Your task to perform on an android device: Search for Italian restaurants on Maps Image 0: 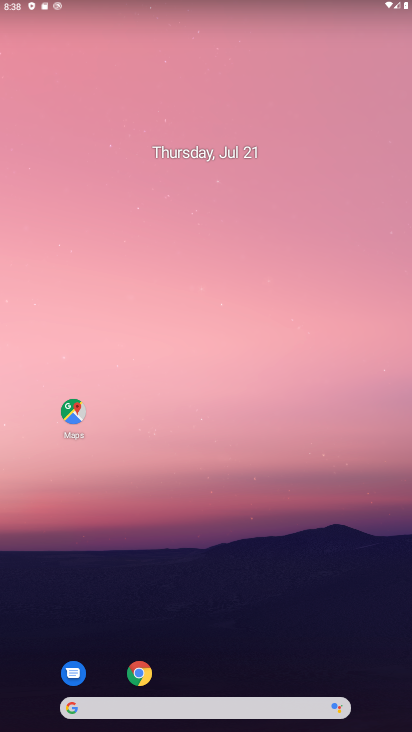
Step 0: drag from (235, 720) to (233, 8)
Your task to perform on an android device: Search for Italian restaurants on Maps Image 1: 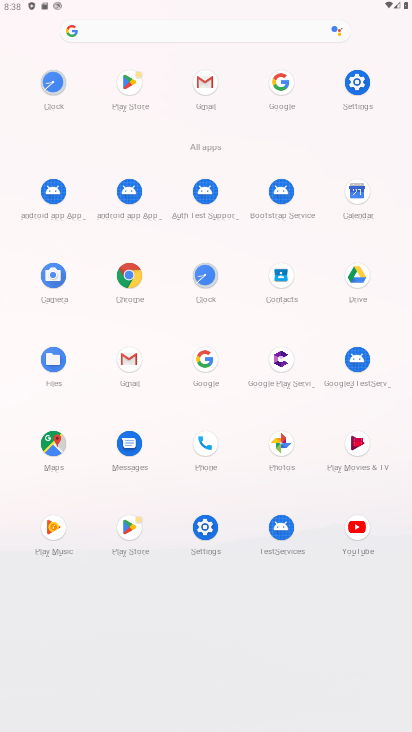
Step 1: click (49, 441)
Your task to perform on an android device: Search for Italian restaurants on Maps Image 2: 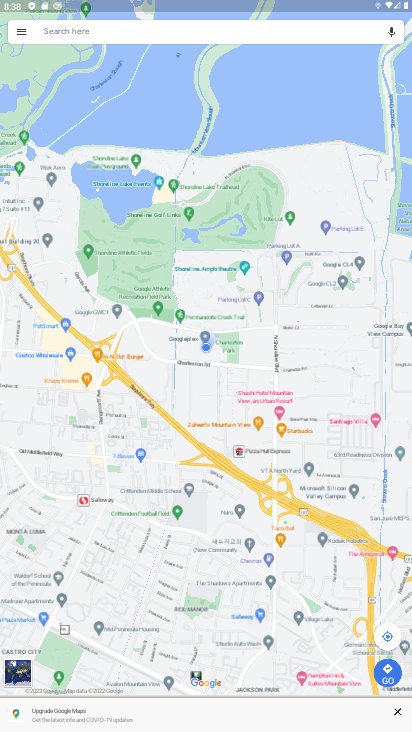
Step 2: click (214, 36)
Your task to perform on an android device: Search for Italian restaurants on Maps Image 3: 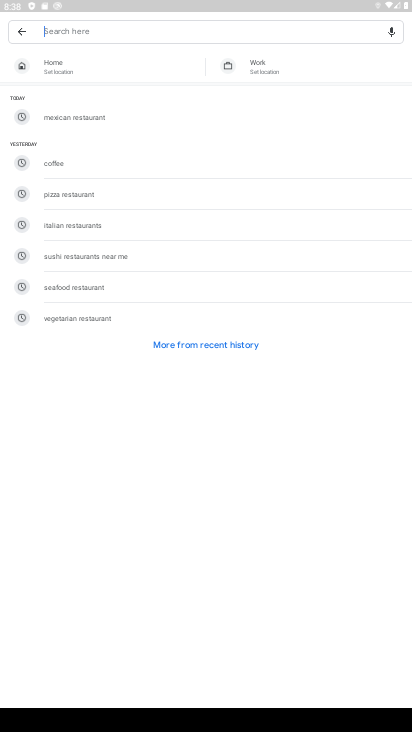
Step 3: type "italian restaurants"
Your task to perform on an android device: Search for Italian restaurants on Maps Image 4: 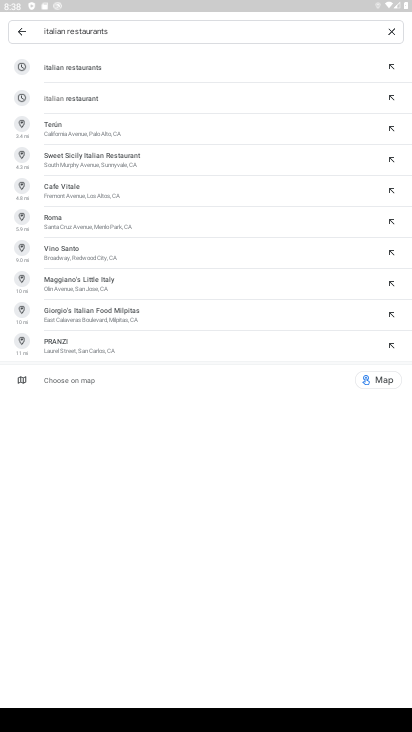
Step 4: click (84, 68)
Your task to perform on an android device: Search for Italian restaurants on Maps Image 5: 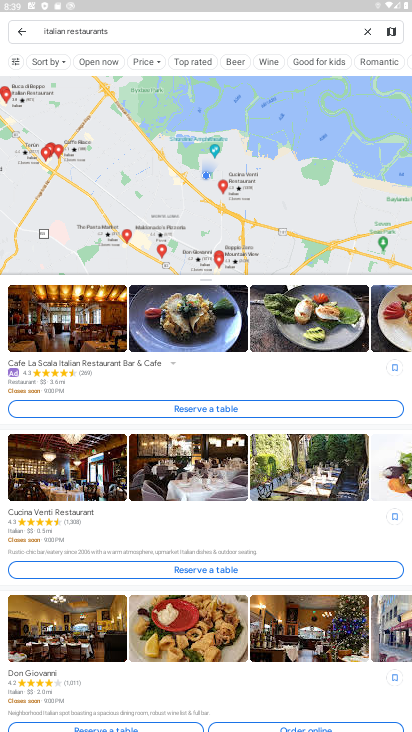
Step 5: task complete